Your task to perform on an android device: toggle improve location accuracy Image 0: 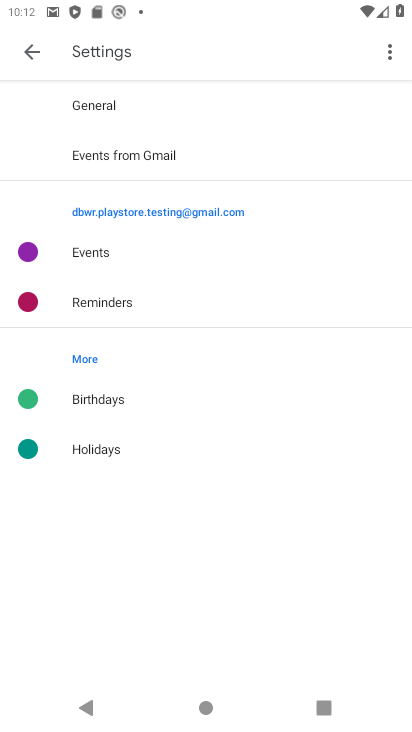
Step 0: press back button
Your task to perform on an android device: toggle improve location accuracy Image 1: 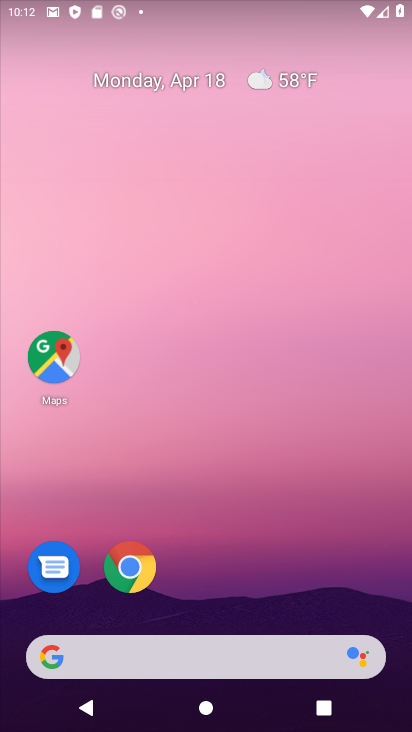
Step 1: drag from (223, 726) to (205, 65)
Your task to perform on an android device: toggle improve location accuracy Image 2: 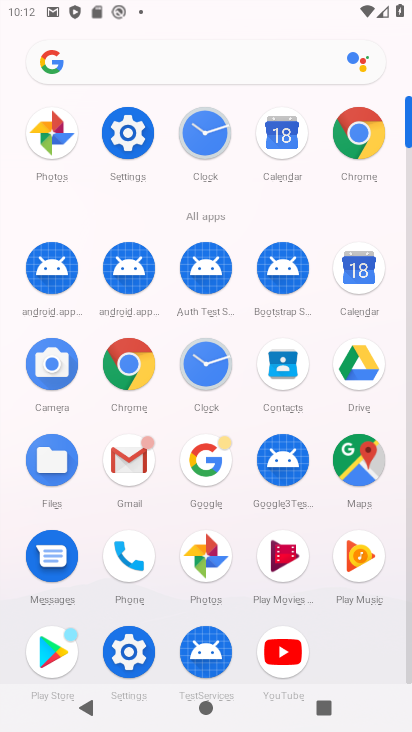
Step 2: click (132, 138)
Your task to perform on an android device: toggle improve location accuracy Image 3: 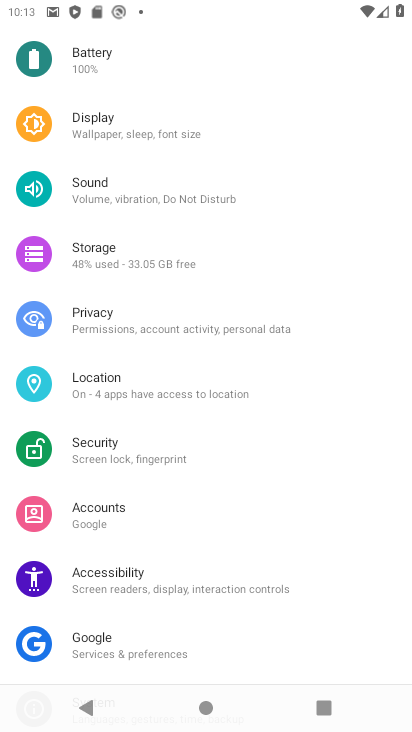
Step 3: click (110, 390)
Your task to perform on an android device: toggle improve location accuracy Image 4: 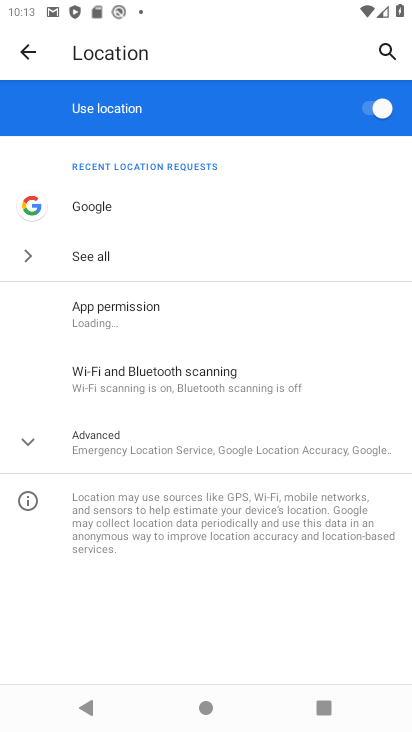
Step 4: click (120, 444)
Your task to perform on an android device: toggle improve location accuracy Image 5: 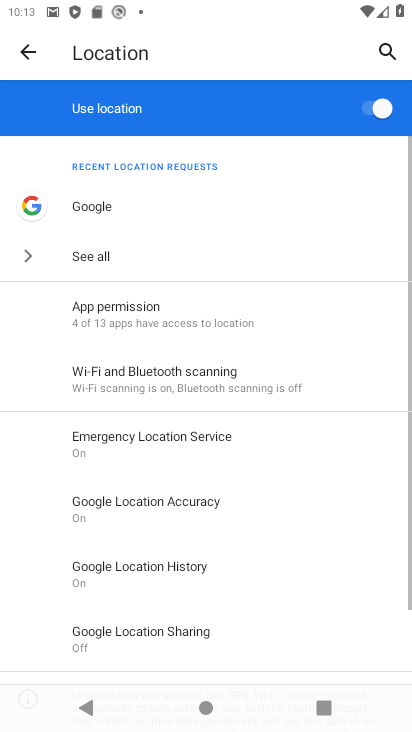
Step 5: drag from (251, 638) to (255, 354)
Your task to perform on an android device: toggle improve location accuracy Image 6: 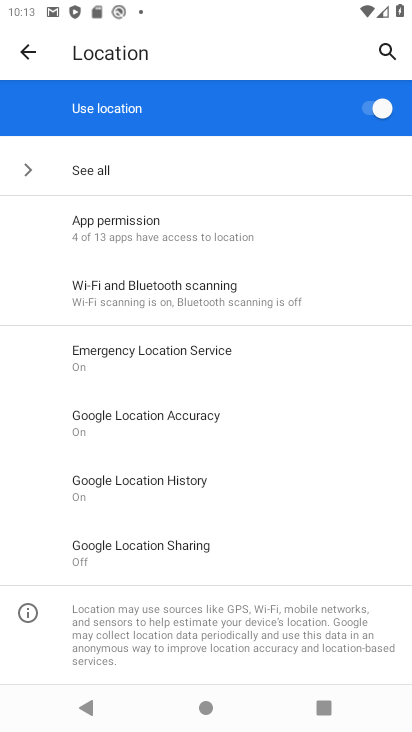
Step 6: click (163, 414)
Your task to perform on an android device: toggle improve location accuracy Image 7: 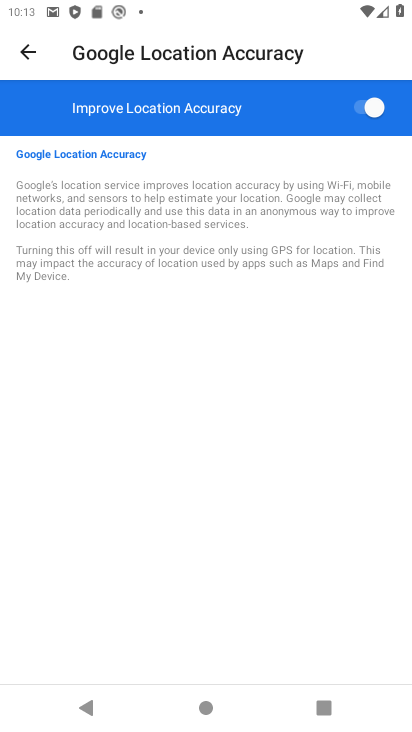
Step 7: click (359, 104)
Your task to perform on an android device: toggle improve location accuracy Image 8: 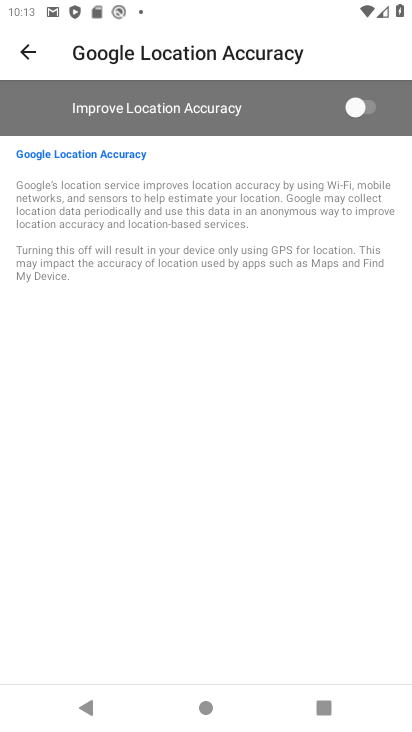
Step 8: task complete